Your task to perform on an android device: Do I have any events this weekend? Image 0: 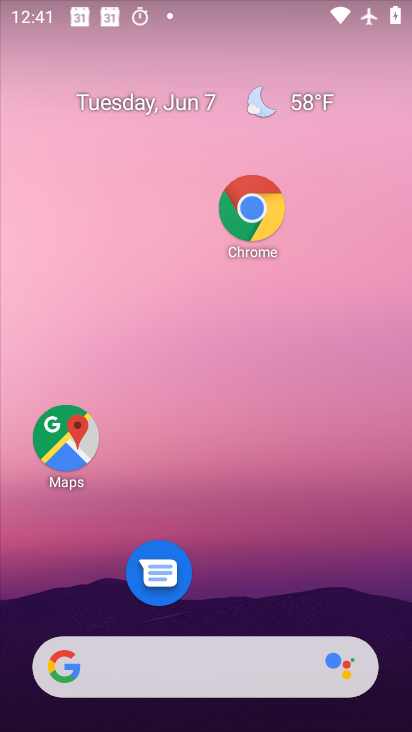
Step 0: drag from (206, 597) to (206, 66)
Your task to perform on an android device: Do I have any events this weekend? Image 1: 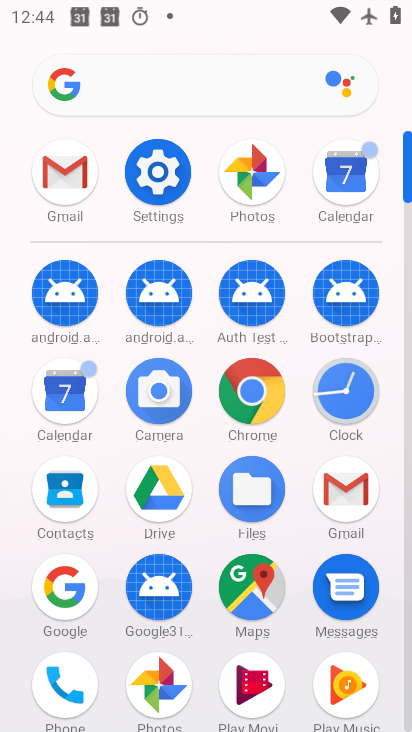
Step 1: click (72, 402)
Your task to perform on an android device: Do I have any events this weekend? Image 2: 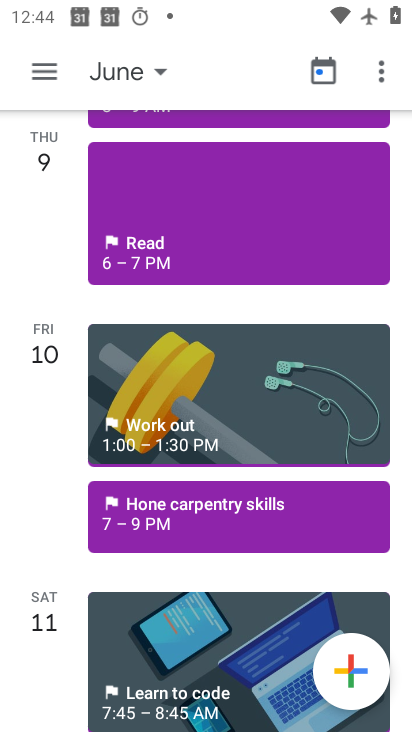
Step 2: click (150, 71)
Your task to perform on an android device: Do I have any events this weekend? Image 3: 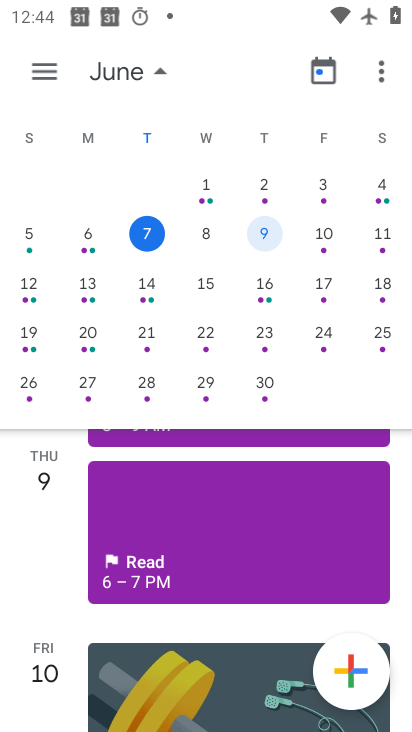
Step 3: click (369, 230)
Your task to perform on an android device: Do I have any events this weekend? Image 4: 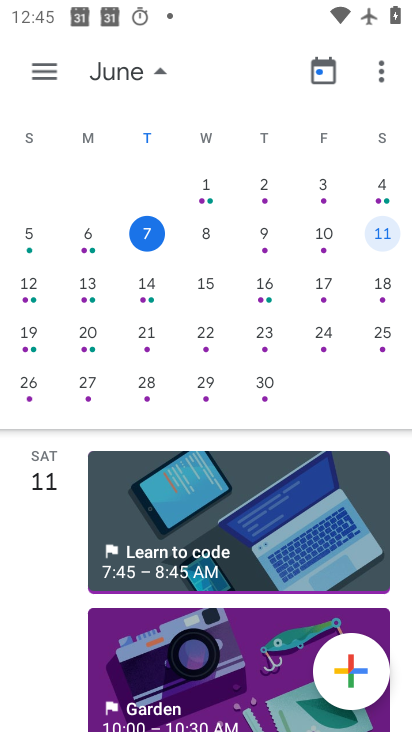
Step 4: drag from (295, 549) to (307, 277)
Your task to perform on an android device: Do I have any events this weekend? Image 5: 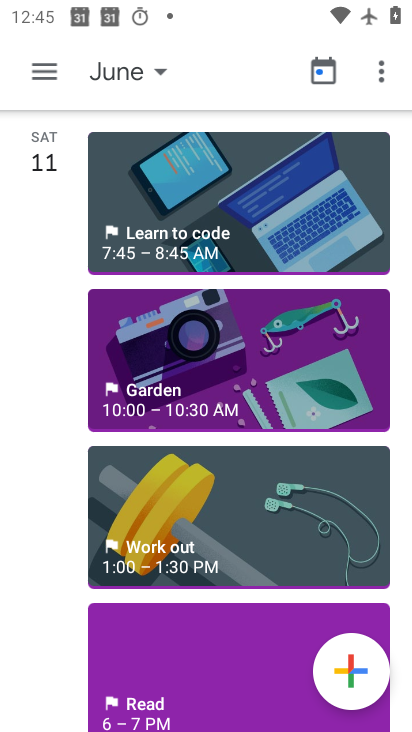
Step 5: drag from (284, 478) to (294, 293)
Your task to perform on an android device: Do I have any events this weekend? Image 6: 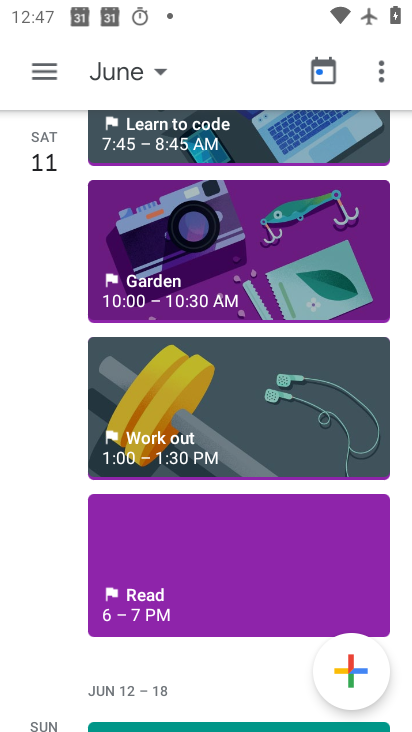
Step 6: drag from (218, 629) to (287, 215)
Your task to perform on an android device: Do I have any events this weekend? Image 7: 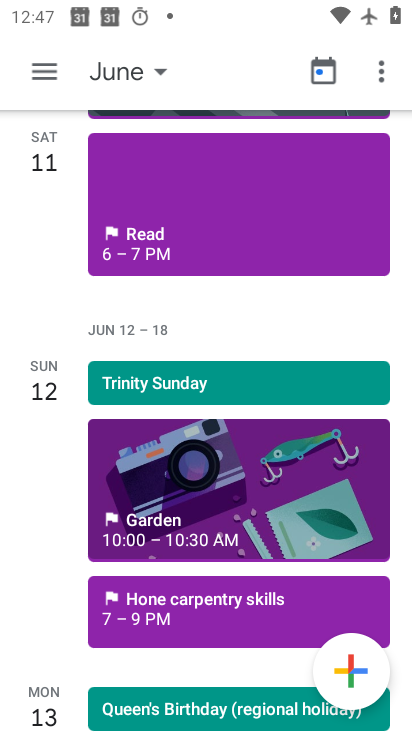
Step 7: drag from (246, 242) to (256, 425)
Your task to perform on an android device: Do I have any events this weekend? Image 8: 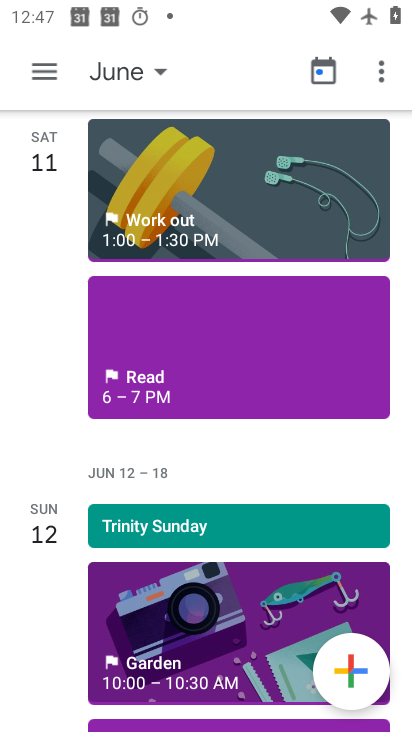
Step 8: click (145, 70)
Your task to perform on an android device: Do I have any events this weekend? Image 9: 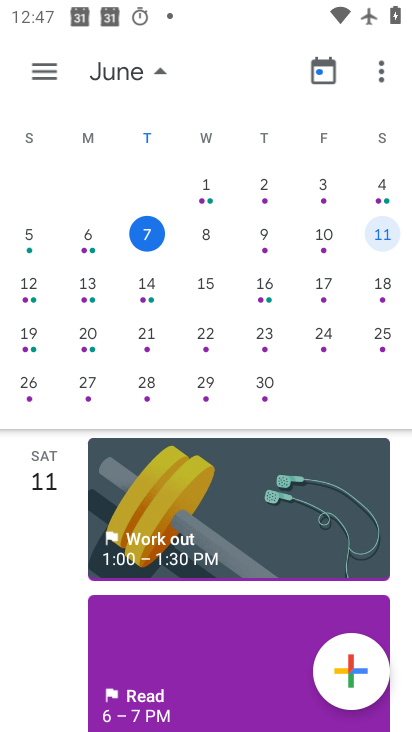
Step 9: click (319, 231)
Your task to perform on an android device: Do I have any events this weekend? Image 10: 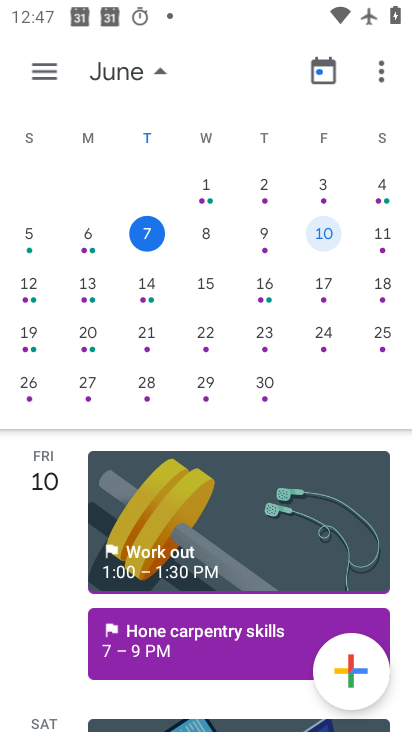
Step 10: click (263, 238)
Your task to perform on an android device: Do I have any events this weekend? Image 11: 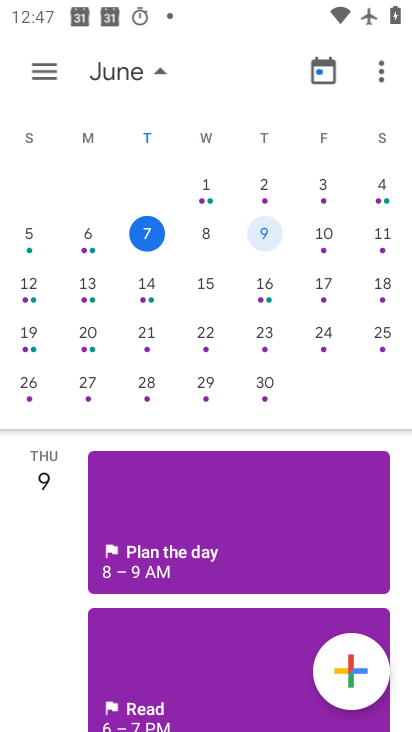
Step 11: task complete